Your task to perform on an android device: Open Wikipedia Image 0: 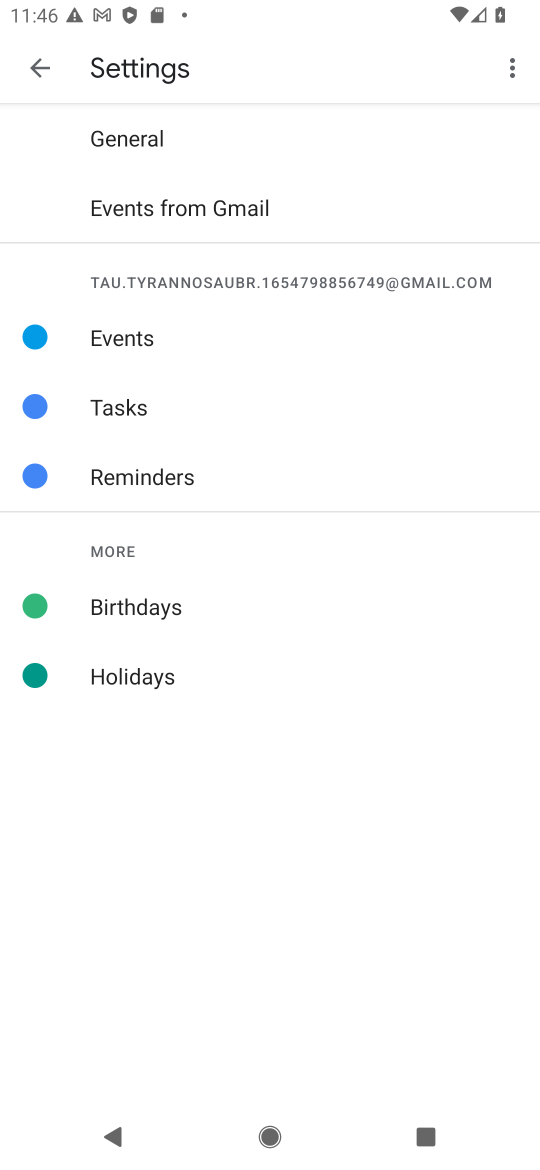
Step 0: press home button
Your task to perform on an android device: Open Wikipedia Image 1: 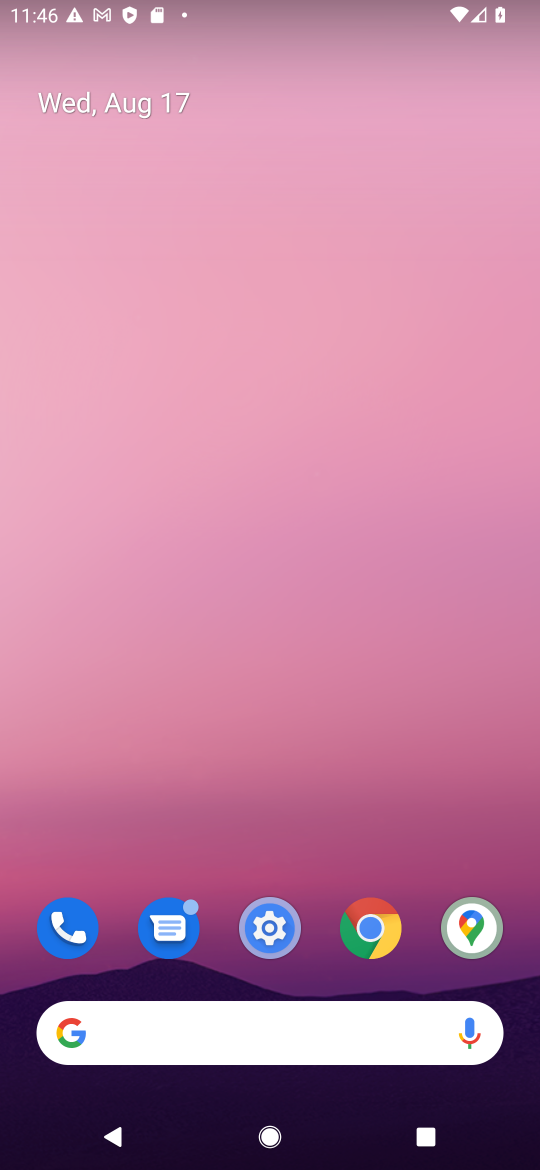
Step 1: click (353, 912)
Your task to perform on an android device: Open Wikipedia Image 2: 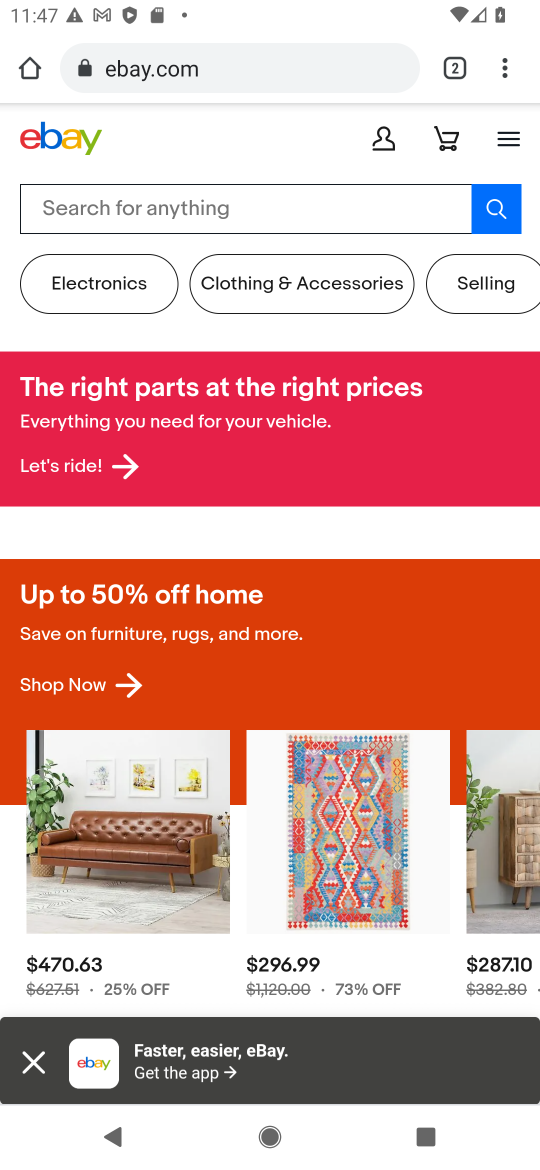
Step 2: click (456, 68)
Your task to perform on an android device: Open Wikipedia Image 3: 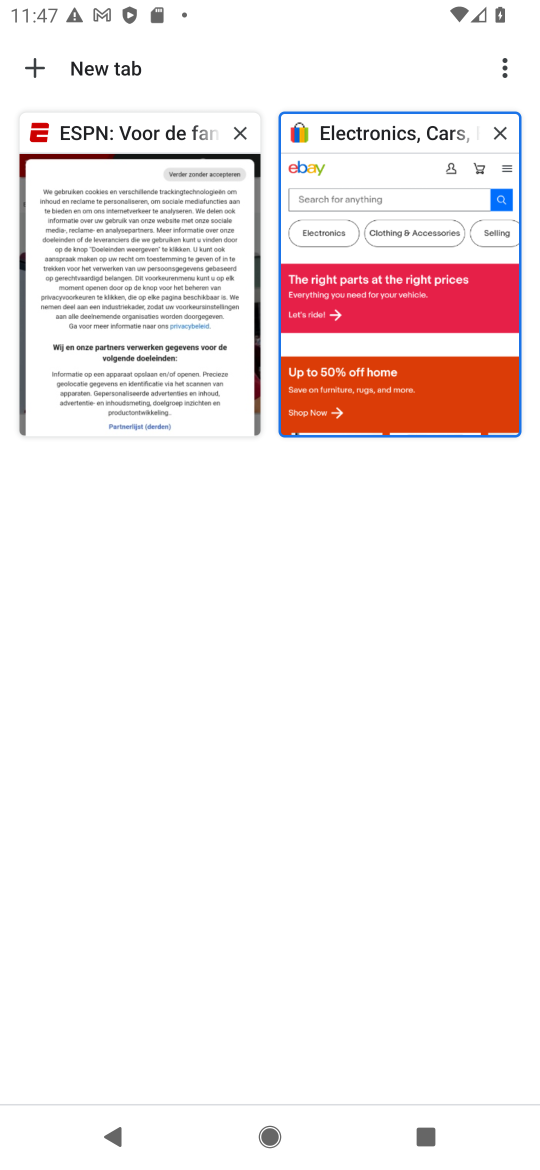
Step 3: click (36, 65)
Your task to perform on an android device: Open Wikipedia Image 4: 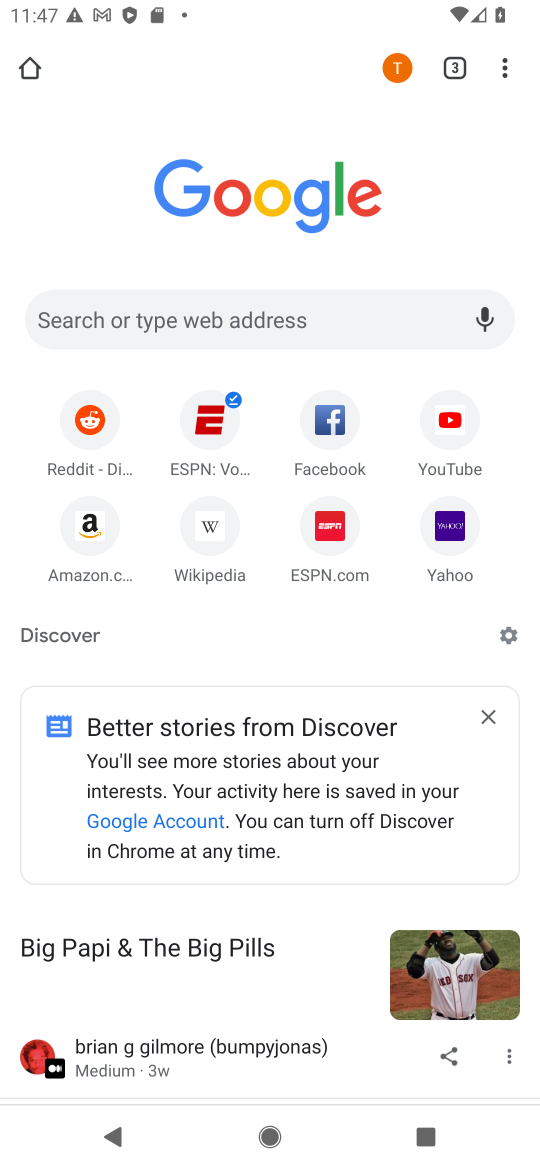
Step 4: click (229, 527)
Your task to perform on an android device: Open Wikipedia Image 5: 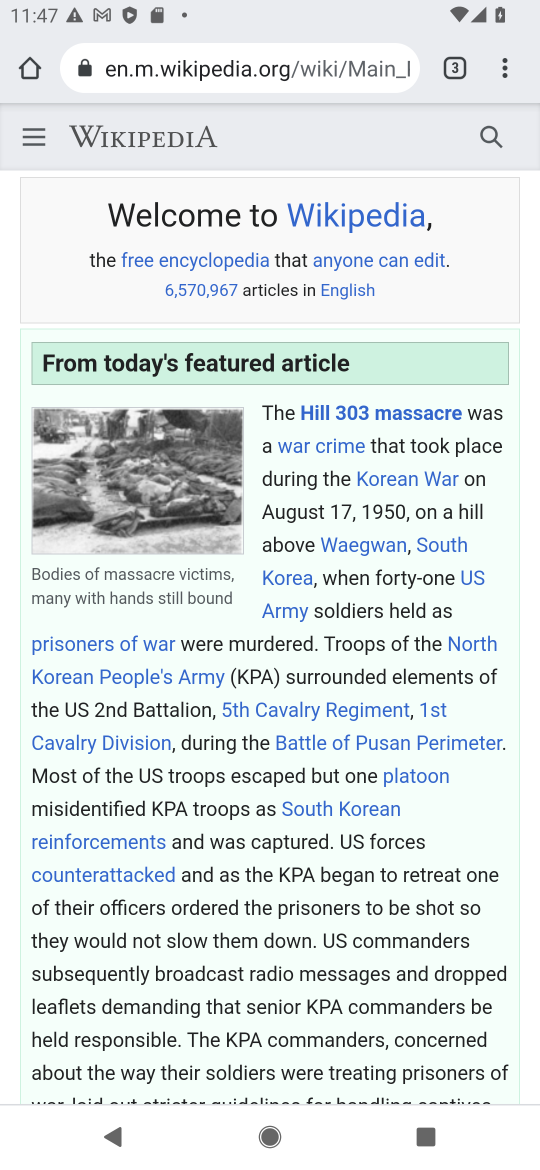
Step 5: task complete